Your task to perform on an android device: Go to calendar. Show me events next week Image 0: 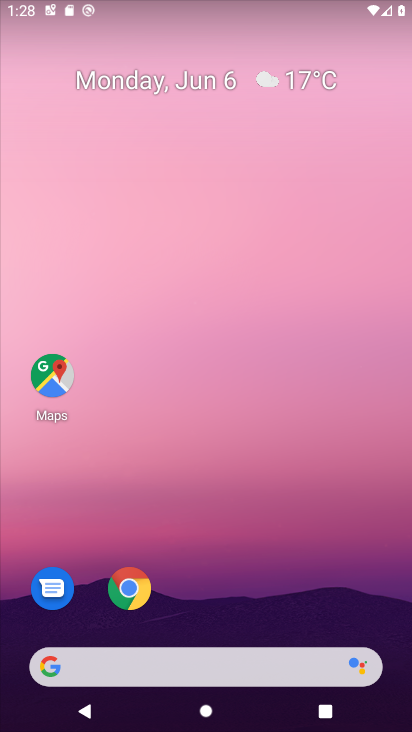
Step 0: drag from (251, 399) to (342, 0)
Your task to perform on an android device: Go to calendar. Show me events next week Image 1: 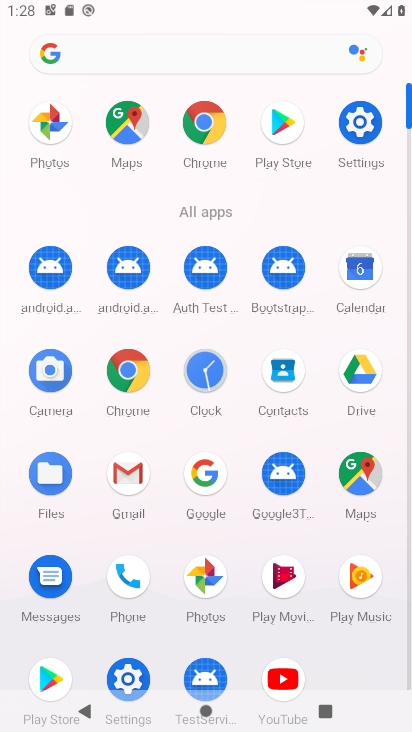
Step 1: click (368, 263)
Your task to perform on an android device: Go to calendar. Show me events next week Image 2: 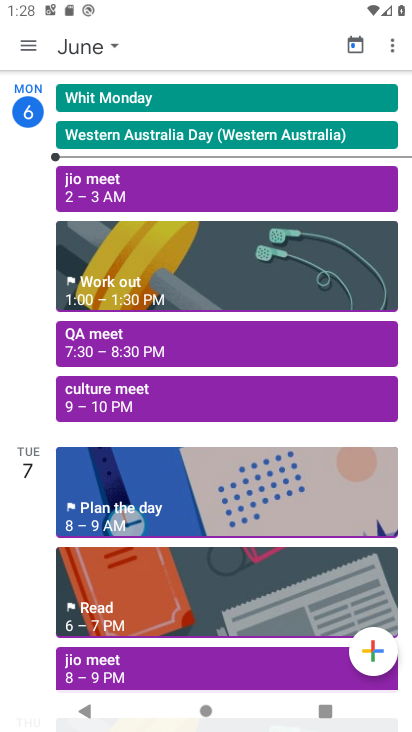
Step 2: task complete